Your task to perform on an android device: Open calendar and show me the first week of next month Image 0: 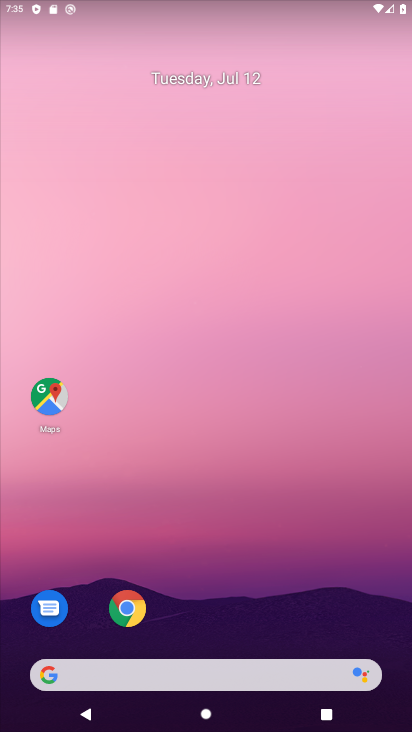
Step 0: drag from (238, 628) to (231, 207)
Your task to perform on an android device: Open calendar and show me the first week of next month Image 1: 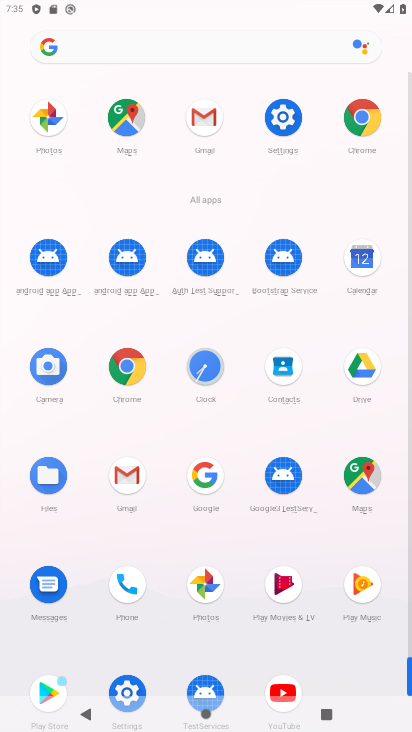
Step 1: click (368, 247)
Your task to perform on an android device: Open calendar and show me the first week of next month Image 2: 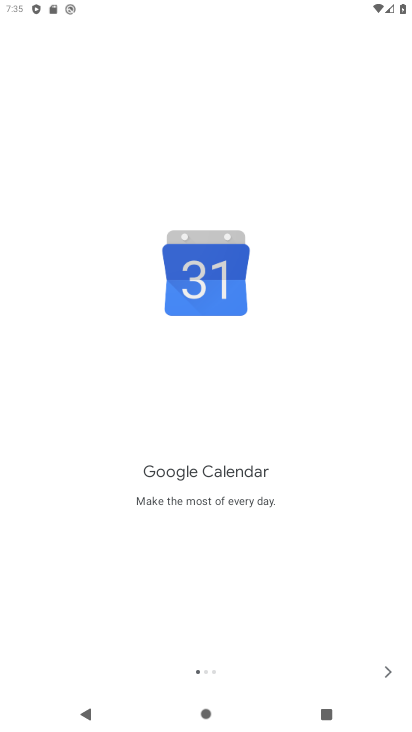
Step 2: click (388, 672)
Your task to perform on an android device: Open calendar and show me the first week of next month Image 3: 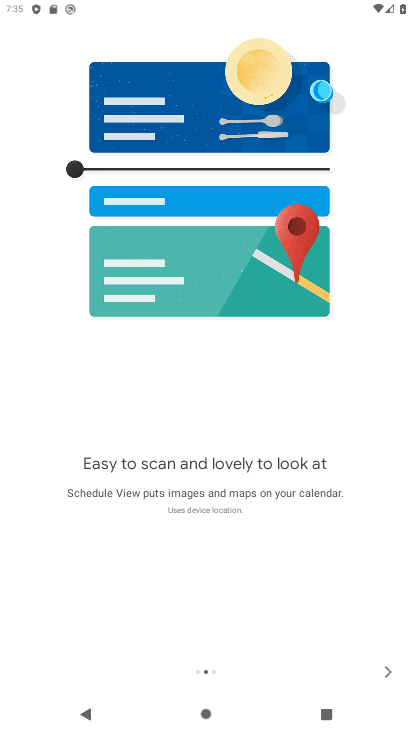
Step 3: click (388, 672)
Your task to perform on an android device: Open calendar and show me the first week of next month Image 4: 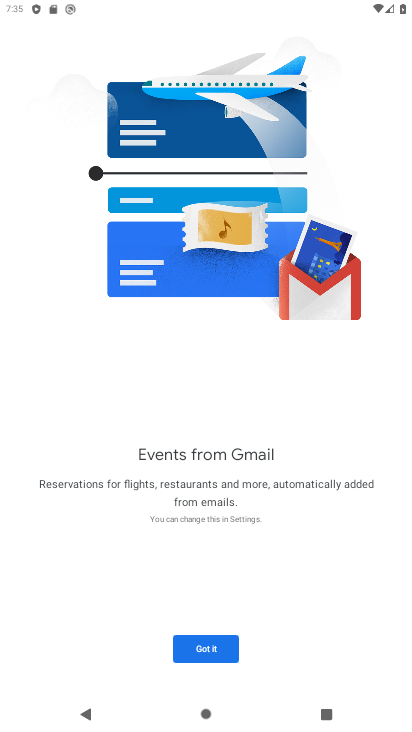
Step 4: click (206, 644)
Your task to perform on an android device: Open calendar and show me the first week of next month Image 5: 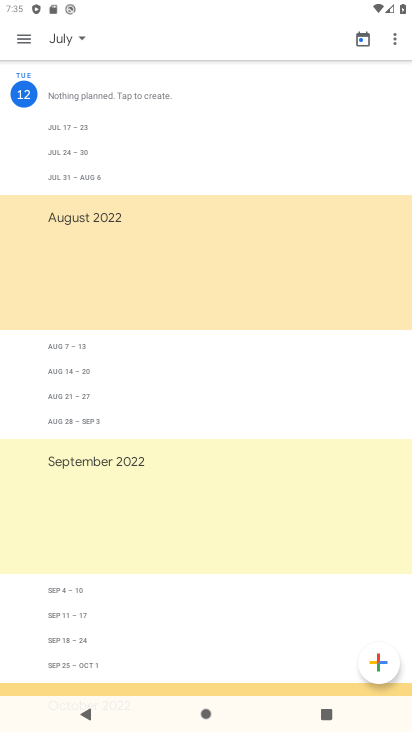
Step 5: click (22, 31)
Your task to perform on an android device: Open calendar and show me the first week of next month Image 6: 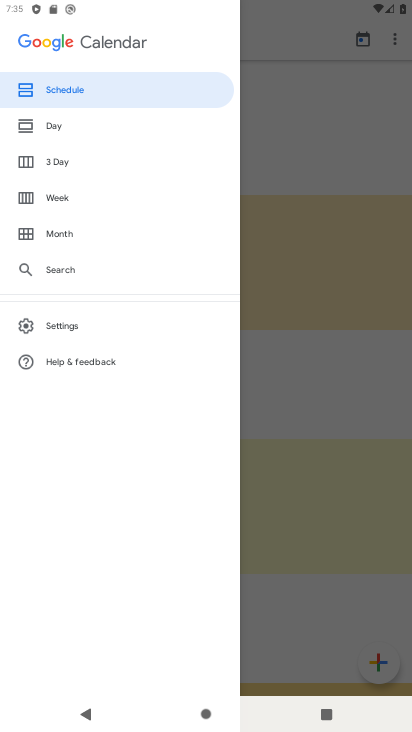
Step 6: click (82, 233)
Your task to perform on an android device: Open calendar and show me the first week of next month Image 7: 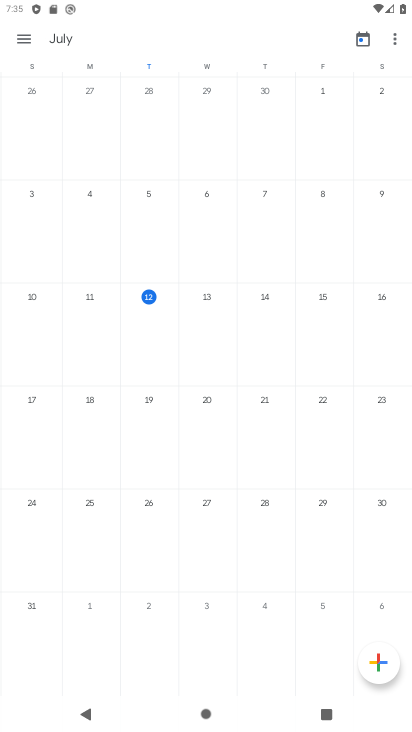
Step 7: task complete